Your task to perform on an android device: turn off translation in the chrome app Image 0: 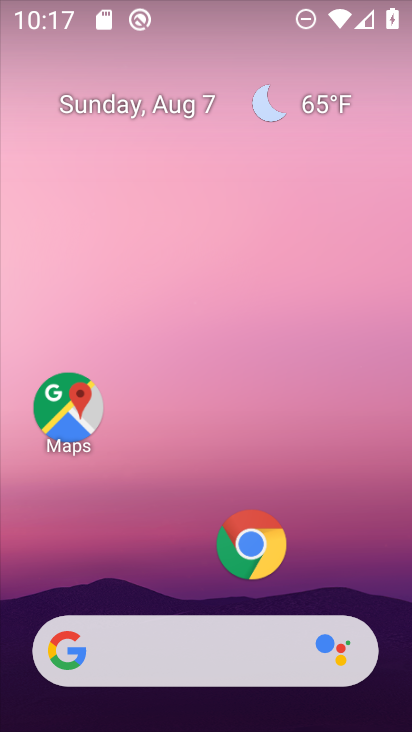
Step 0: drag from (180, 579) to (135, 15)
Your task to perform on an android device: turn off translation in the chrome app Image 1: 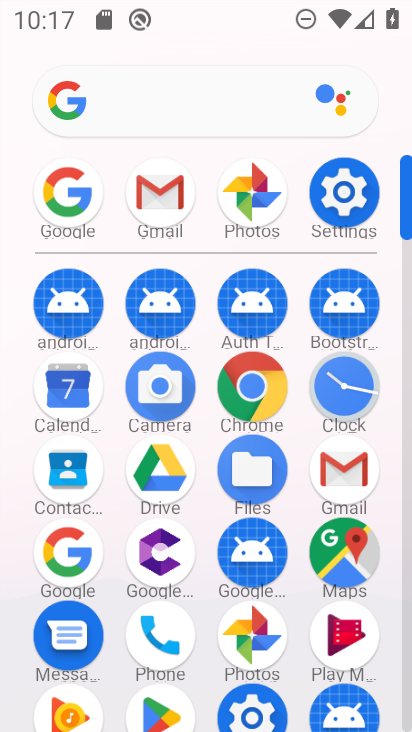
Step 1: click (261, 392)
Your task to perform on an android device: turn off translation in the chrome app Image 2: 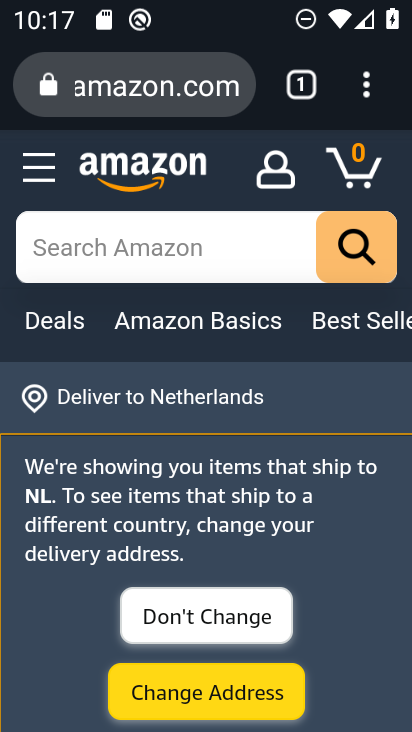
Step 2: click (368, 99)
Your task to perform on an android device: turn off translation in the chrome app Image 3: 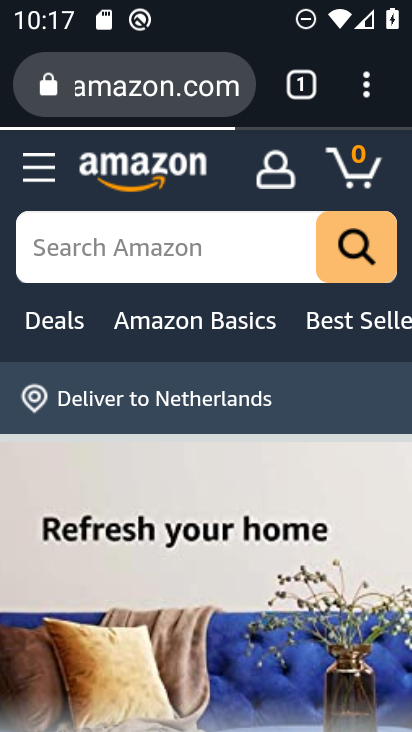
Step 3: drag from (365, 99) to (118, 594)
Your task to perform on an android device: turn off translation in the chrome app Image 4: 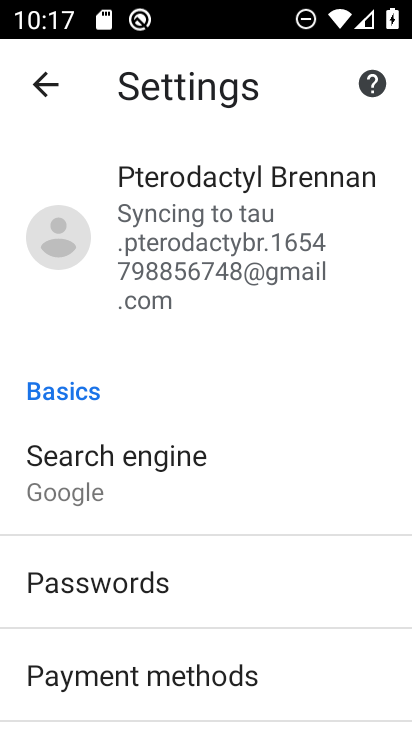
Step 4: drag from (238, 621) to (198, 155)
Your task to perform on an android device: turn off translation in the chrome app Image 5: 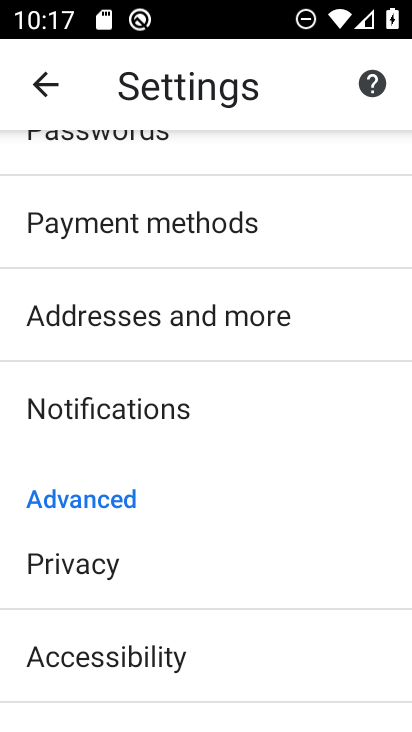
Step 5: drag from (169, 602) to (120, 87)
Your task to perform on an android device: turn off translation in the chrome app Image 6: 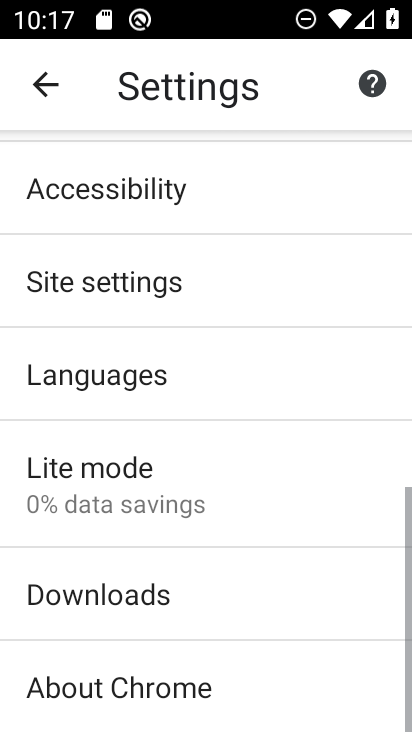
Step 6: click (113, 383)
Your task to perform on an android device: turn off translation in the chrome app Image 7: 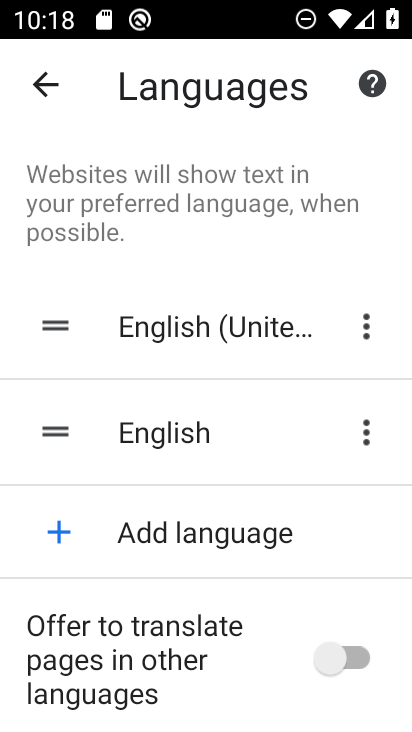
Step 7: task complete